Your task to perform on an android device: toggle data saver in the chrome app Image 0: 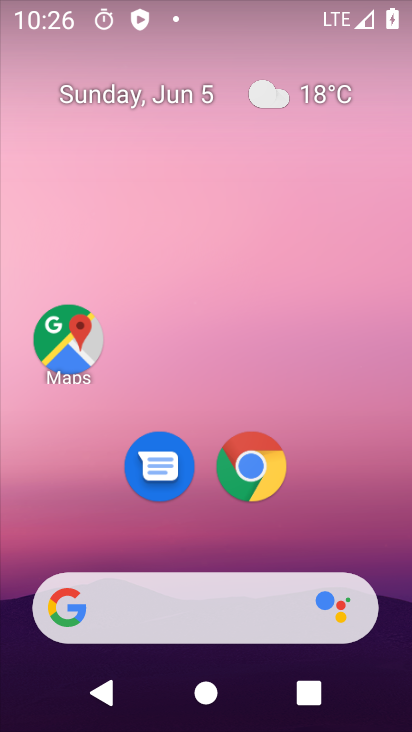
Step 0: click (251, 464)
Your task to perform on an android device: toggle data saver in the chrome app Image 1: 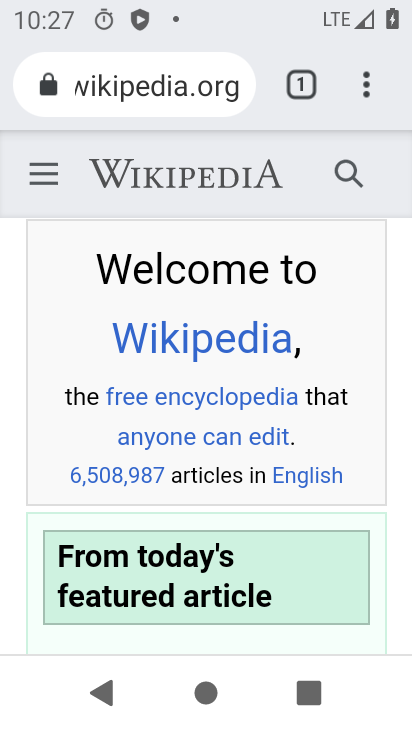
Step 1: click (369, 81)
Your task to perform on an android device: toggle data saver in the chrome app Image 2: 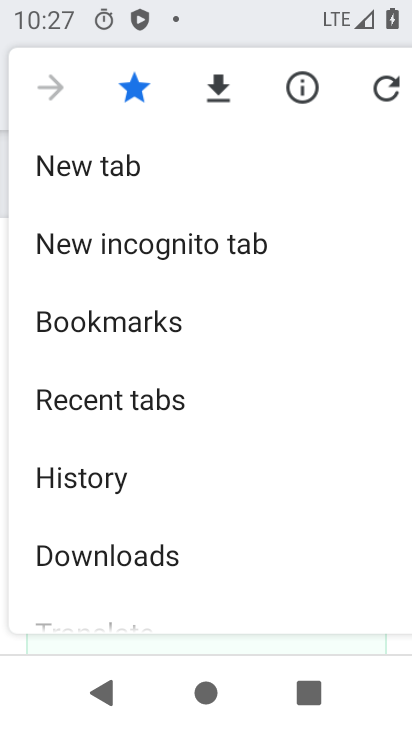
Step 2: drag from (116, 361) to (140, 241)
Your task to perform on an android device: toggle data saver in the chrome app Image 3: 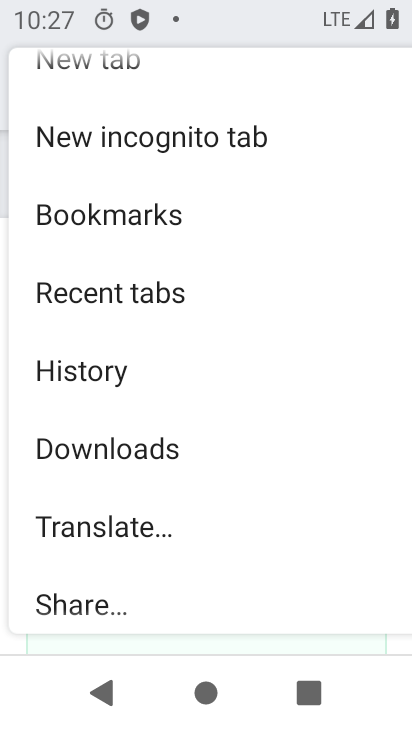
Step 3: drag from (120, 413) to (173, 329)
Your task to perform on an android device: toggle data saver in the chrome app Image 4: 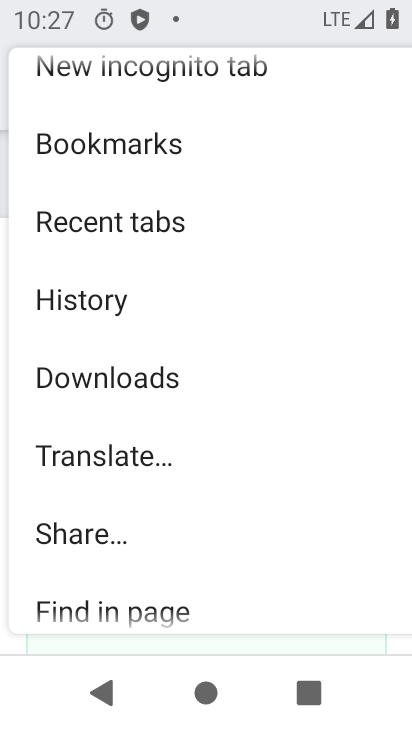
Step 4: drag from (110, 501) to (148, 406)
Your task to perform on an android device: toggle data saver in the chrome app Image 5: 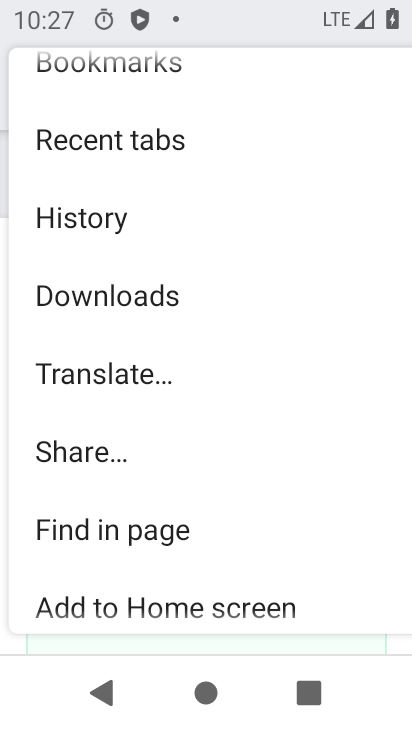
Step 5: drag from (124, 489) to (196, 372)
Your task to perform on an android device: toggle data saver in the chrome app Image 6: 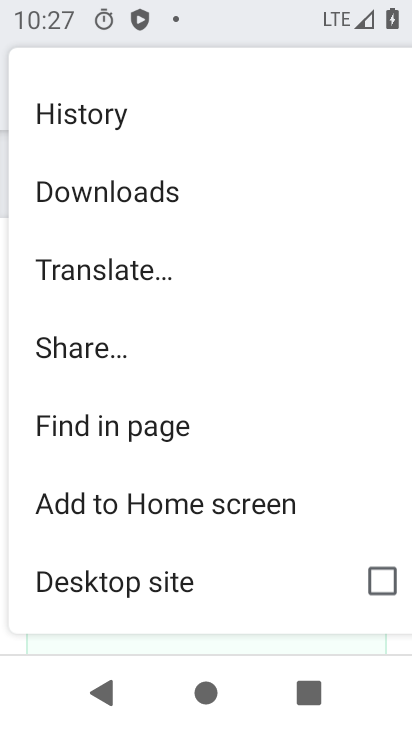
Step 6: drag from (137, 465) to (201, 361)
Your task to perform on an android device: toggle data saver in the chrome app Image 7: 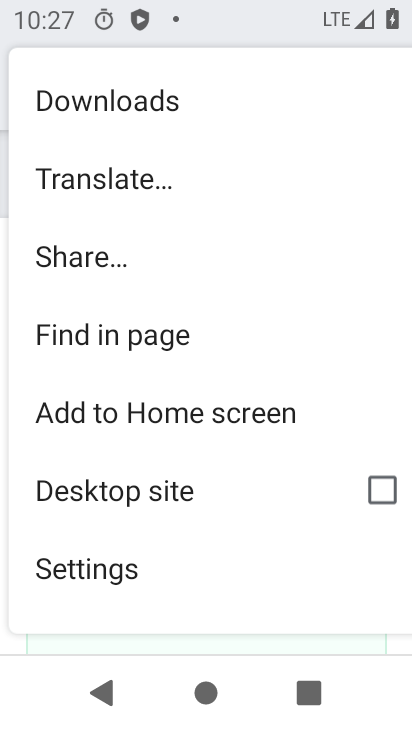
Step 7: drag from (103, 531) to (169, 433)
Your task to perform on an android device: toggle data saver in the chrome app Image 8: 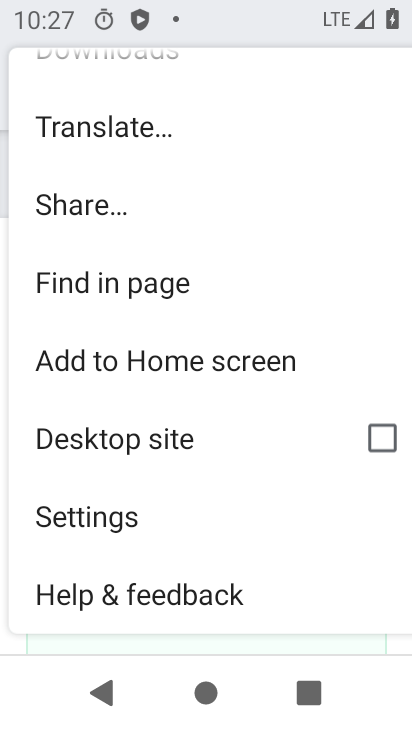
Step 8: click (99, 518)
Your task to perform on an android device: toggle data saver in the chrome app Image 9: 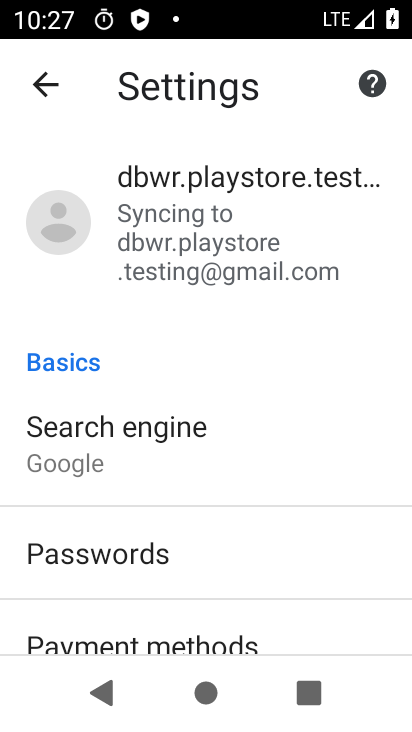
Step 9: drag from (208, 533) to (235, 436)
Your task to perform on an android device: toggle data saver in the chrome app Image 10: 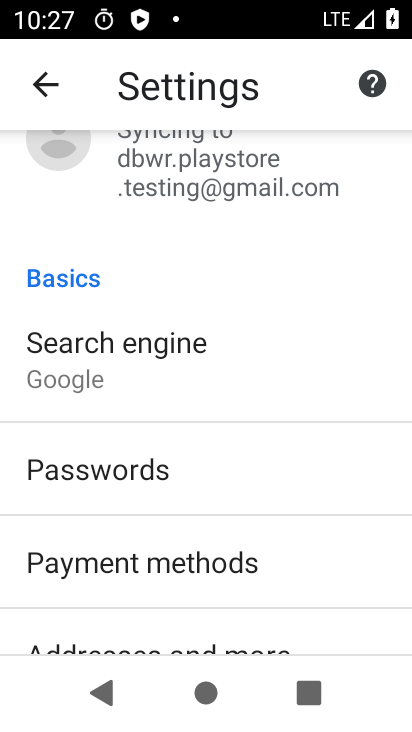
Step 10: drag from (222, 537) to (248, 419)
Your task to perform on an android device: toggle data saver in the chrome app Image 11: 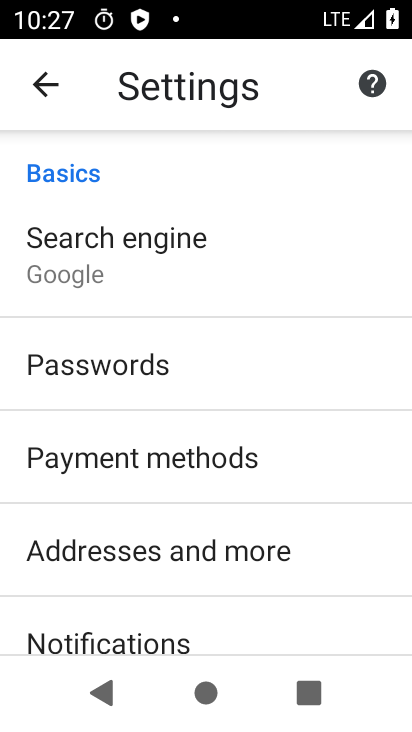
Step 11: drag from (179, 523) to (225, 417)
Your task to perform on an android device: toggle data saver in the chrome app Image 12: 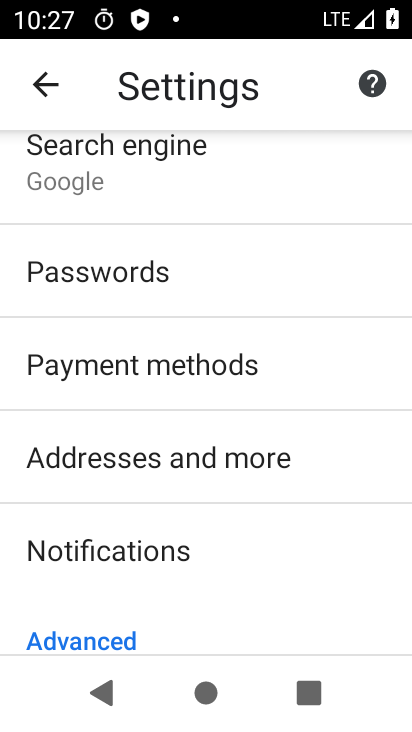
Step 12: drag from (236, 540) to (238, 436)
Your task to perform on an android device: toggle data saver in the chrome app Image 13: 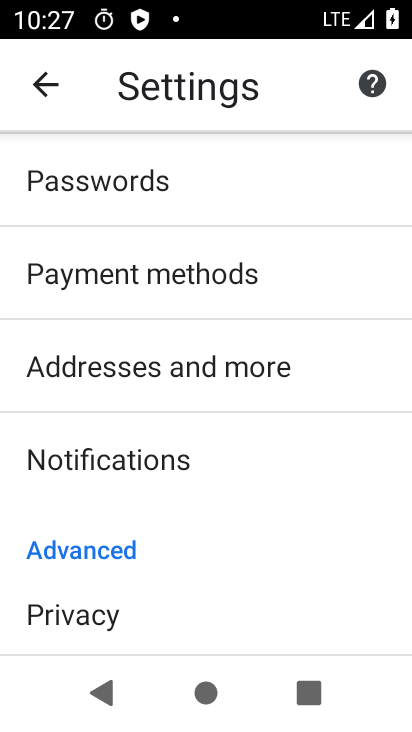
Step 13: drag from (200, 529) to (250, 398)
Your task to perform on an android device: toggle data saver in the chrome app Image 14: 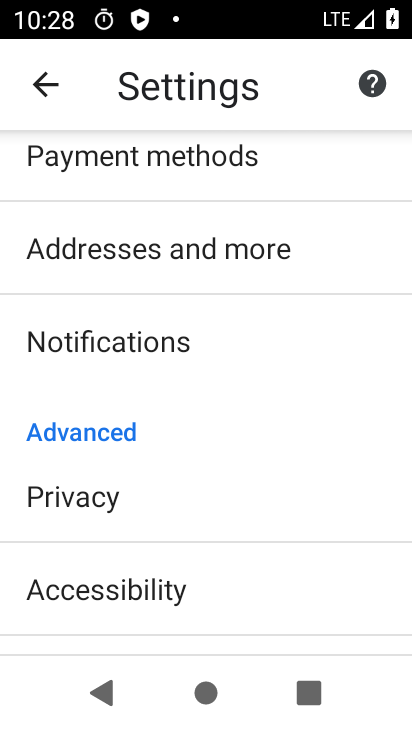
Step 14: drag from (215, 463) to (273, 366)
Your task to perform on an android device: toggle data saver in the chrome app Image 15: 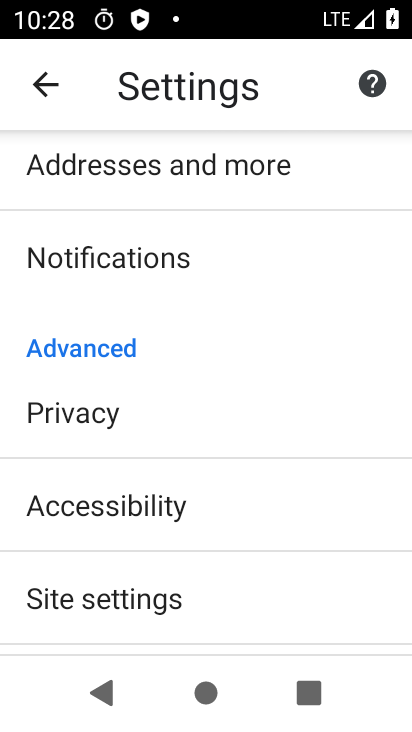
Step 15: drag from (215, 562) to (258, 438)
Your task to perform on an android device: toggle data saver in the chrome app Image 16: 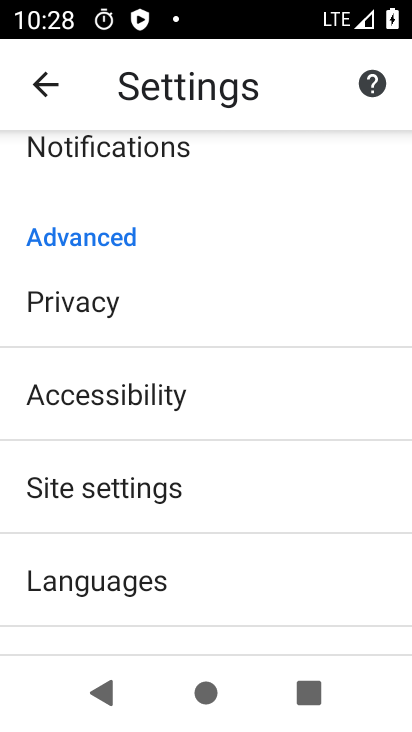
Step 16: drag from (230, 565) to (282, 419)
Your task to perform on an android device: toggle data saver in the chrome app Image 17: 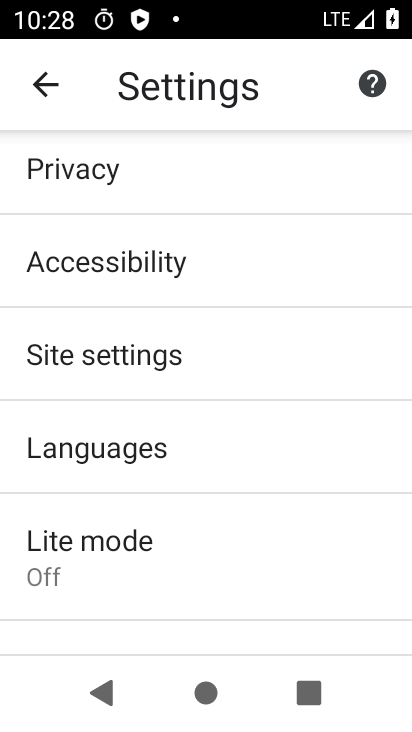
Step 17: click (155, 556)
Your task to perform on an android device: toggle data saver in the chrome app Image 18: 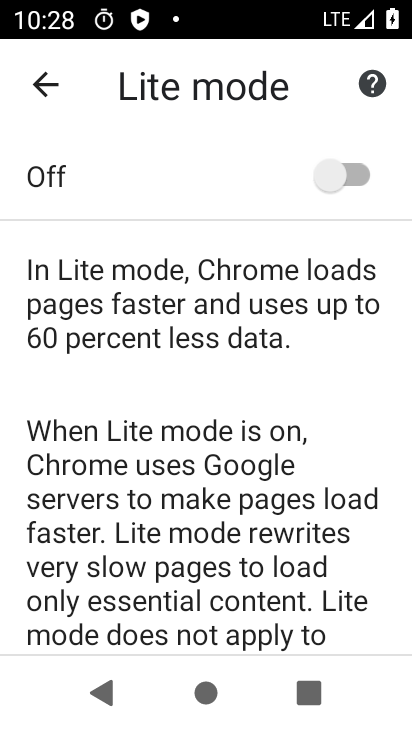
Step 18: click (325, 180)
Your task to perform on an android device: toggle data saver in the chrome app Image 19: 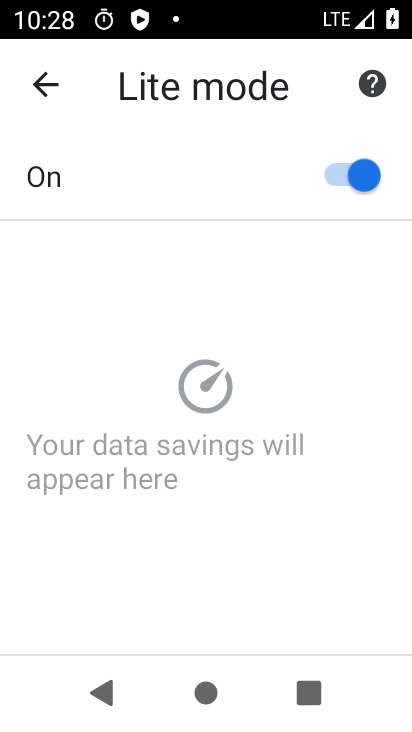
Step 19: task complete